Your task to perform on an android device: turn smart compose on in the gmail app Image 0: 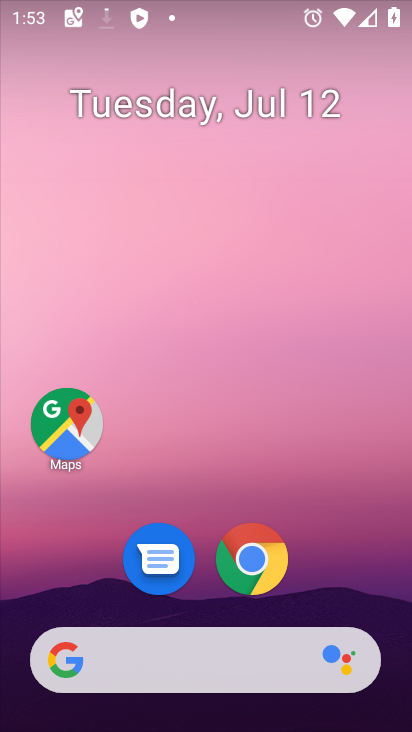
Step 0: drag from (331, 592) to (336, 226)
Your task to perform on an android device: turn smart compose on in the gmail app Image 1: 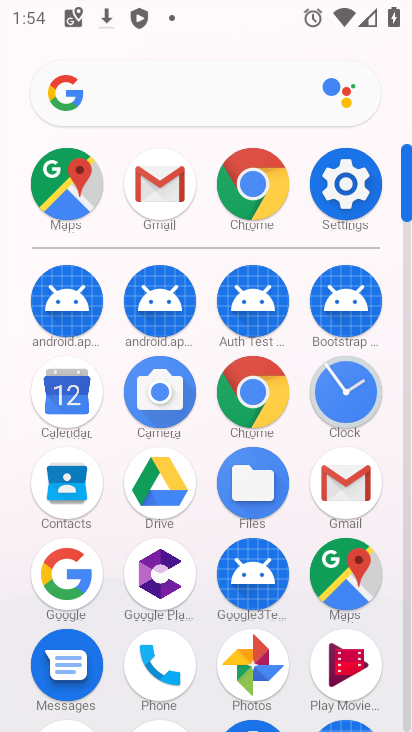
Step 1: click (350, 486)
Your task to perform on an android device: turn smart compose on in the gmail app Image 2: 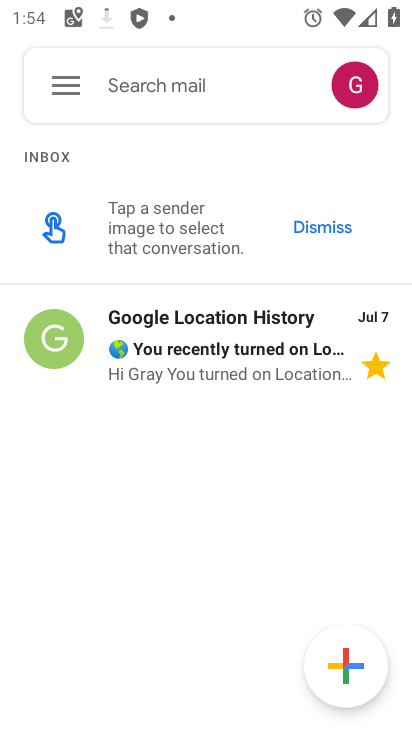
Step 2: click (69, 80)
Your task to perform on an android device: turn smart compose on in the gmail app Image 3: 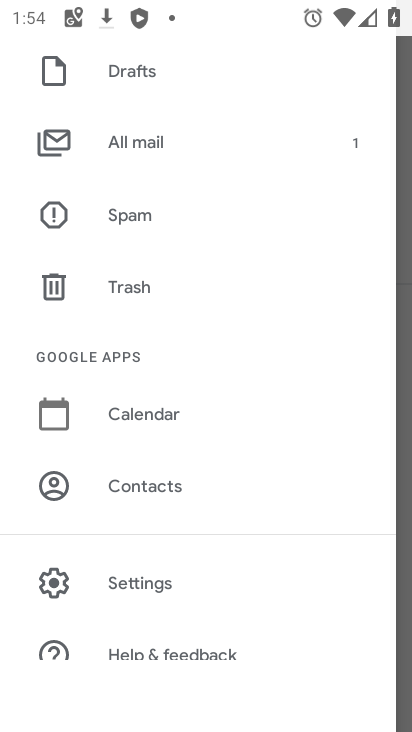
Step 3: click (149, 584)
Your task to perform on an android device: turn smart compose on in the gmail app Image 4: 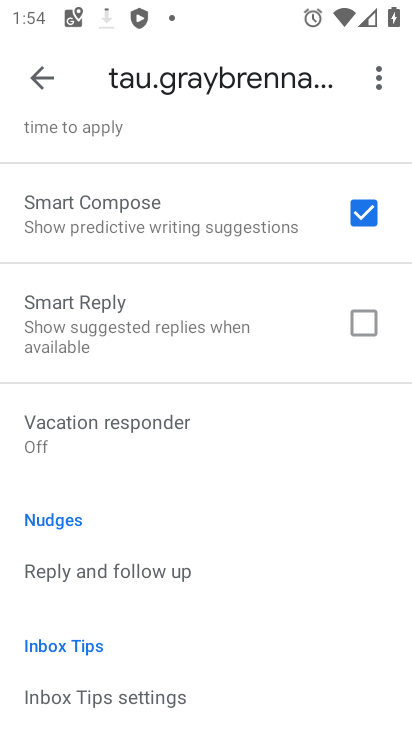
Step 4: task complete